Your task to perform on an android device: turn on wifi Image 0: 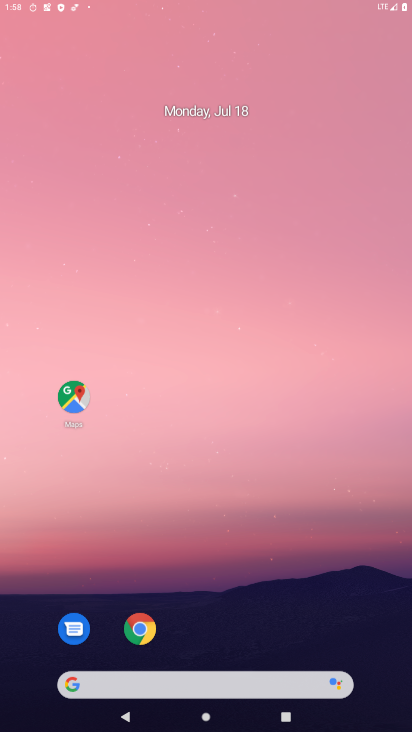
Step 0: press home button
Your task to perform on an android device: turn on wifi Image 1: 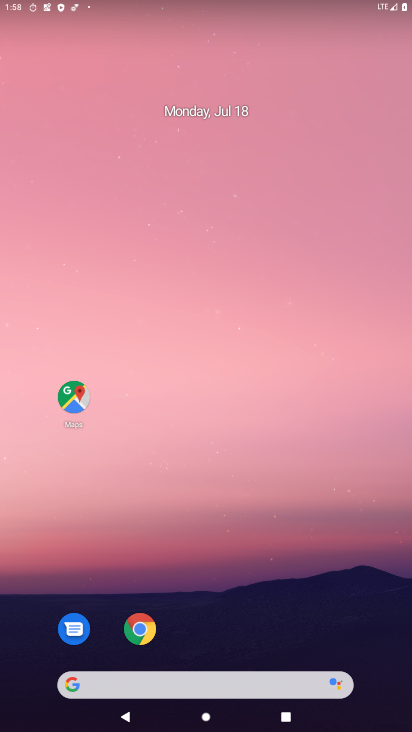
Step 1: drag from (222, 641) to (245, 0)
Your task to perform on an android device: turn on wifi Image 2: 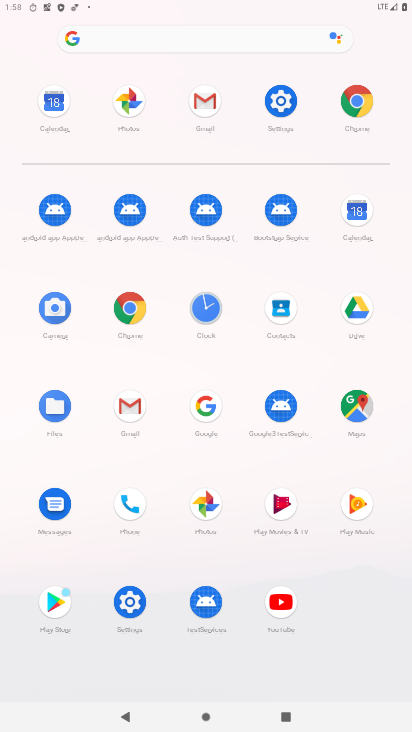
Step 2: drag from (186, 6) to (195, 548)
Your task to perform on an android device: turn on wifi Image 3: 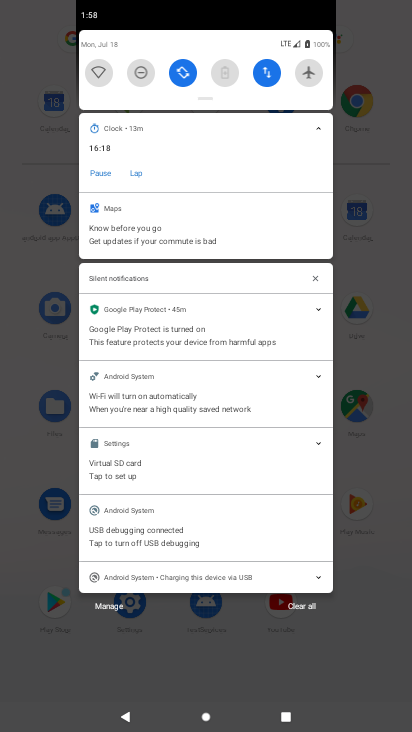
Step 3: click (99, 78)
Your task to perform on an android device: turn on wifi Image 4: 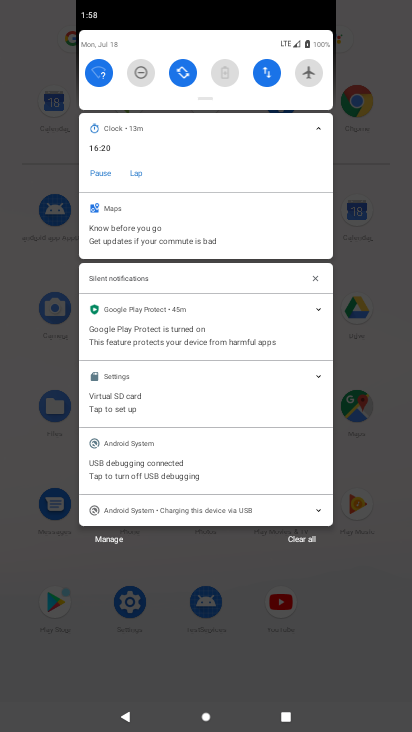
Step 4: task complete